Your task to perform on an android device: Add rayovac triple a to the cart on newegg.com, then select checkout. Image 0: 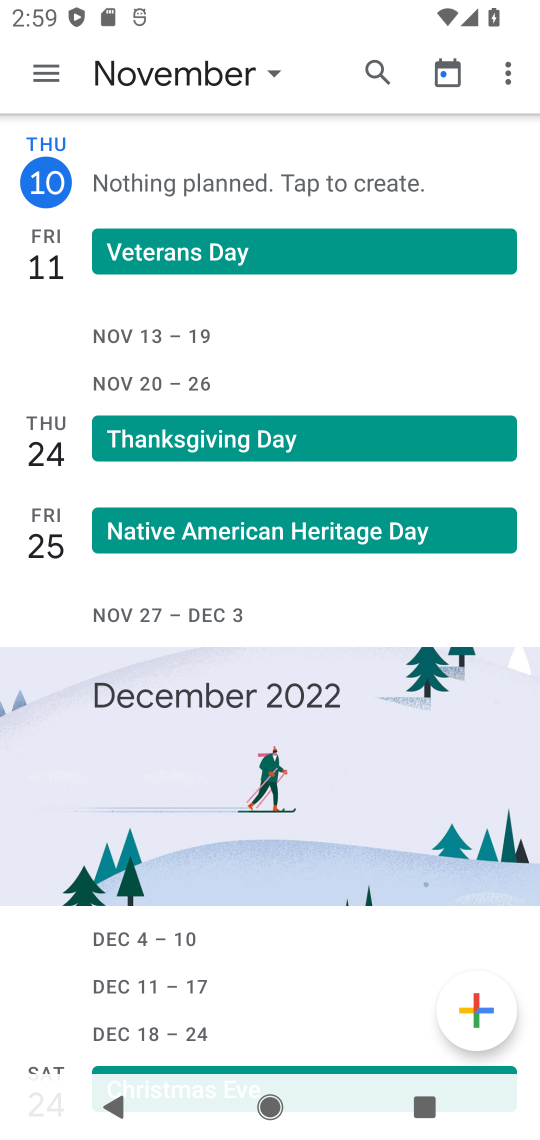
Step 0: press home button
Your task to perform on an android device: Add rayovac triple a to the cart on newegg.com, then select checkout. Image 1: 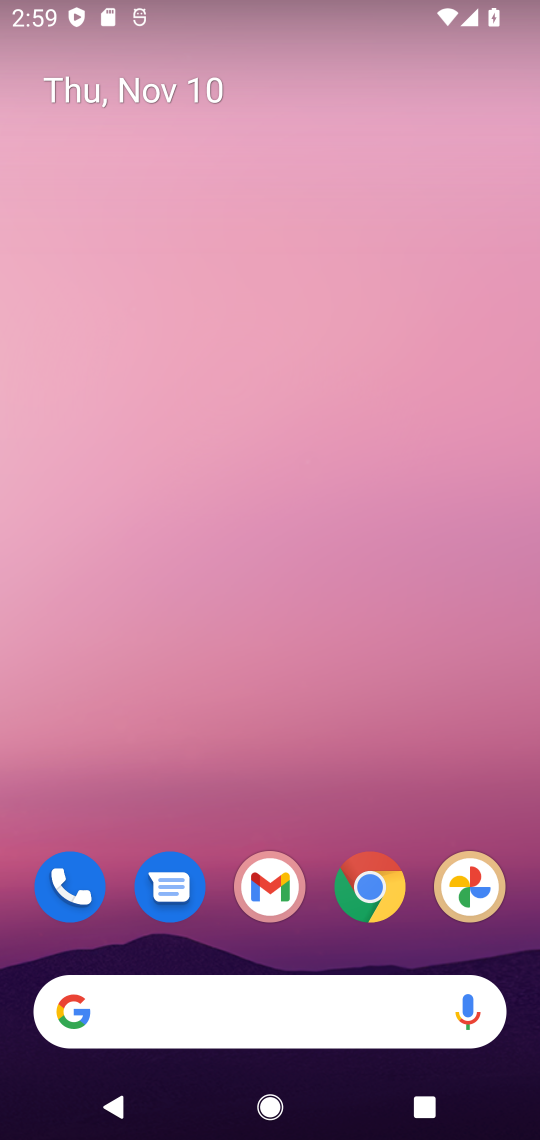
Step 1: drag from (322, 776) to (196, 18)
Your task to perform on an android device: Add rayovac triple a to the cart on newegg.com, then select checkout. Image 2: 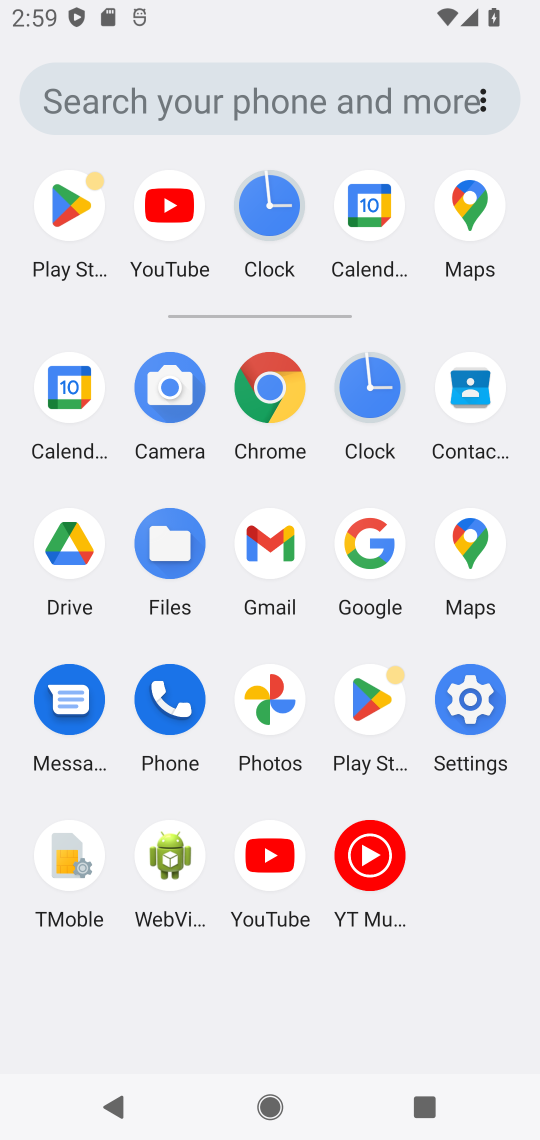
Step 2: click (272, 401)
Your task to perform on an android device: Add rayovac triple a to the cart on newegg.com, then select checkout. Image 3: 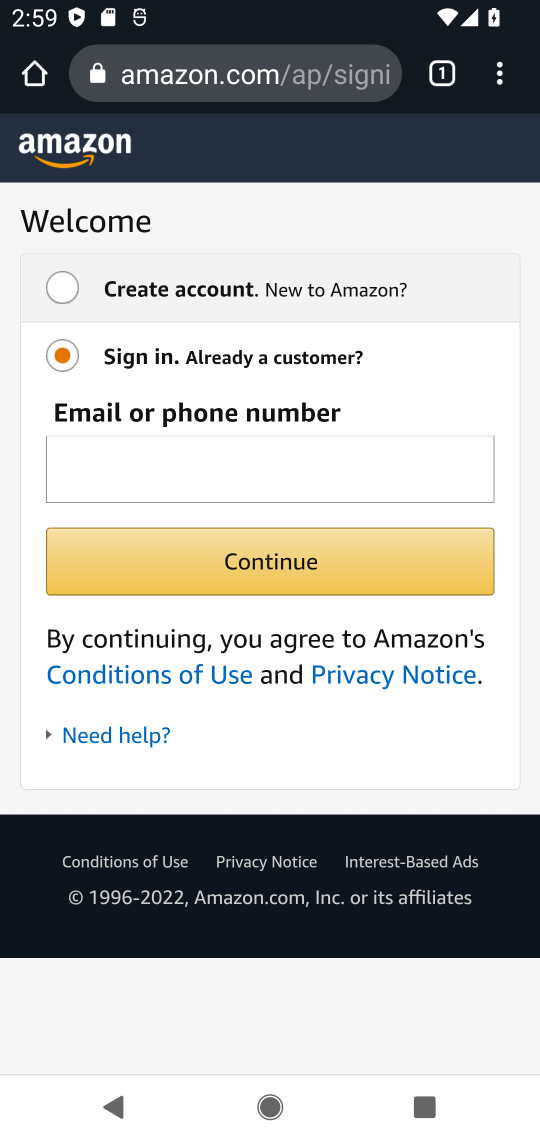
Step 3: click (231, 71)
Your task to perform on an android device: Add rayovac triple a to the cart on newegg.com, then select checkout. Image 4: 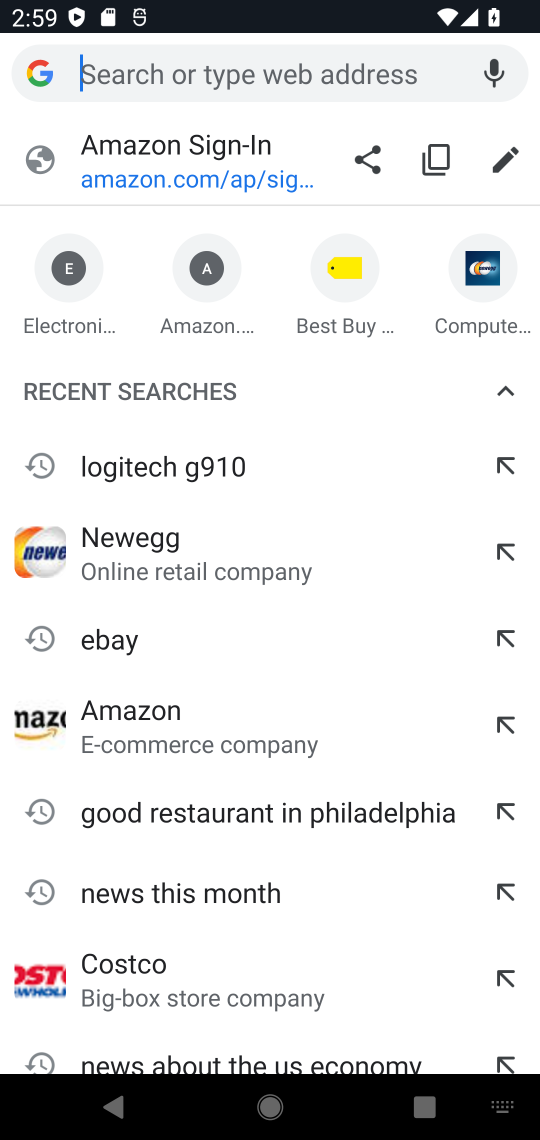
Step 4: type "newegg.com"
Your task to perform on an android device: Add rayovac triple a to the cart on newegg.com, then select checkout. Image 5: 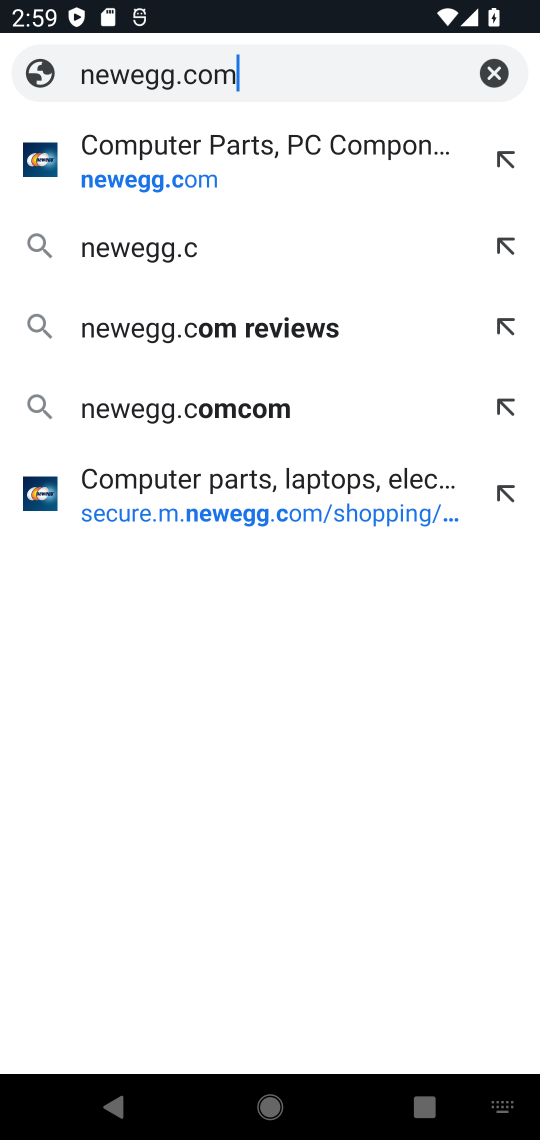
Step 5: press enter
Your task to perform on an android device: Add rayovac triple a to the cart on newegg.com, then select checkout. Image 6: 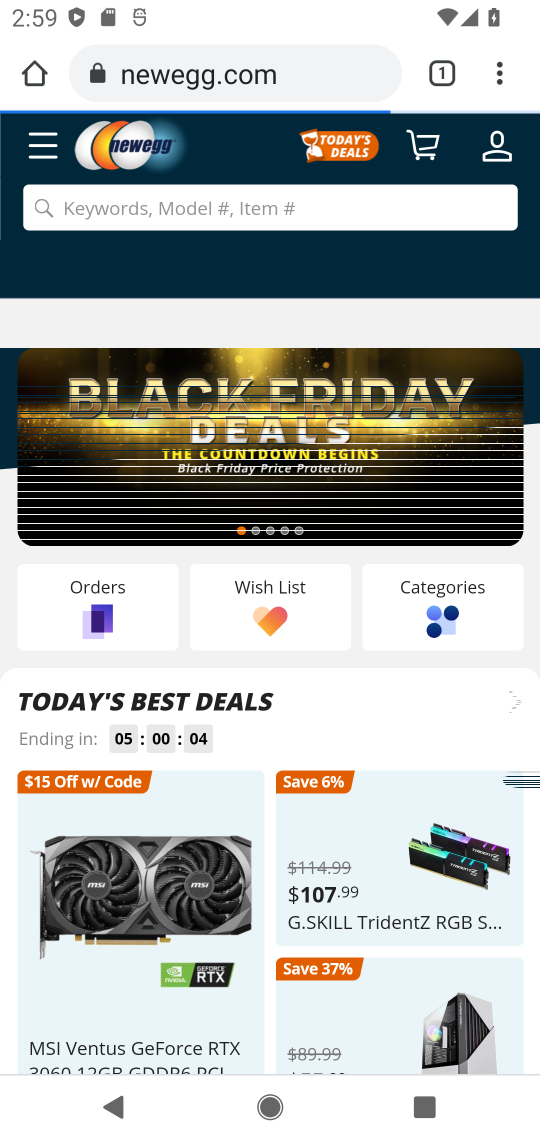
Step 6: click (214, 209)
Your task to perform on an android device: Add rayovac triple a to the cart on newegg.com, then select checkout. Image 7: 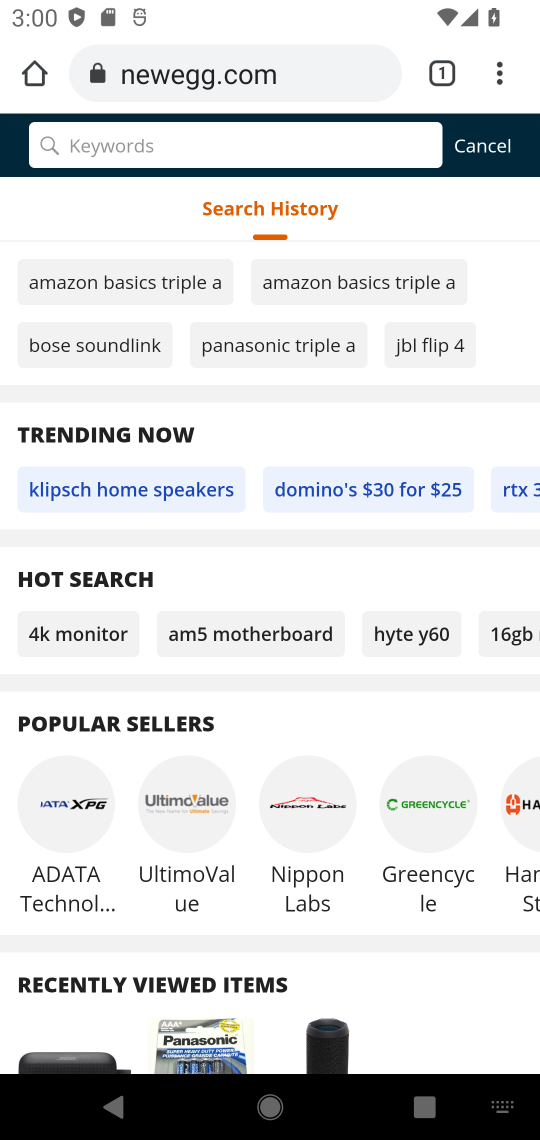
Step 7: type "rayovac triple a"
Your task to perform on an android device: Add rayovac triple a to the cart on newegg.com, then select checkout. Image 8: 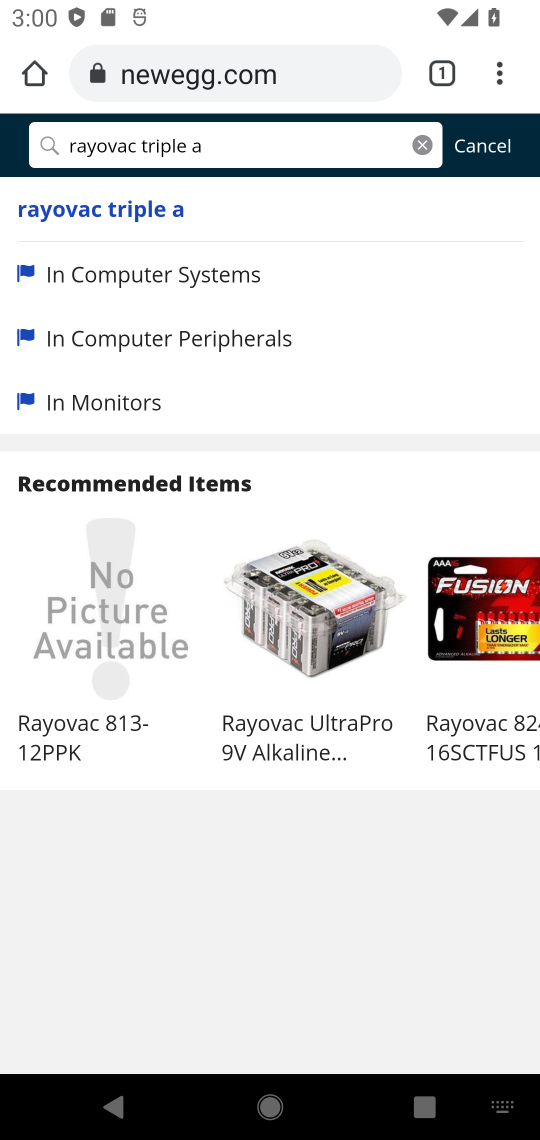
Step 8: press enter
Your task to perform on an android device: Add rayovac triple a to the cart on newegg.com, then select checkout. Image 9: 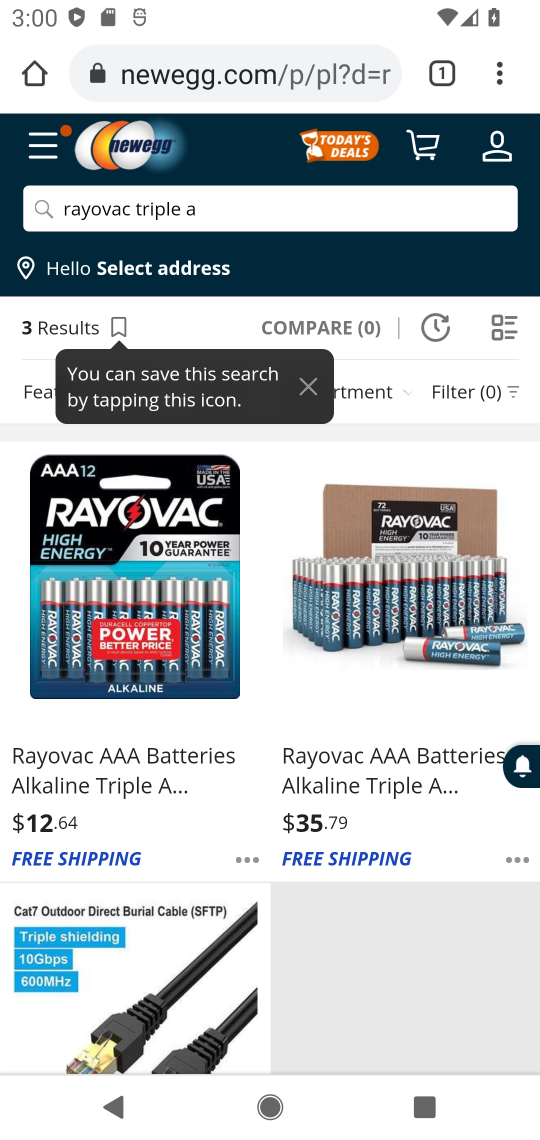
Step 9: click (98, 743)
Your task to perform on an android device: Add rayovac triple a to the cart on newegg.com, then select checkout. Image 10: 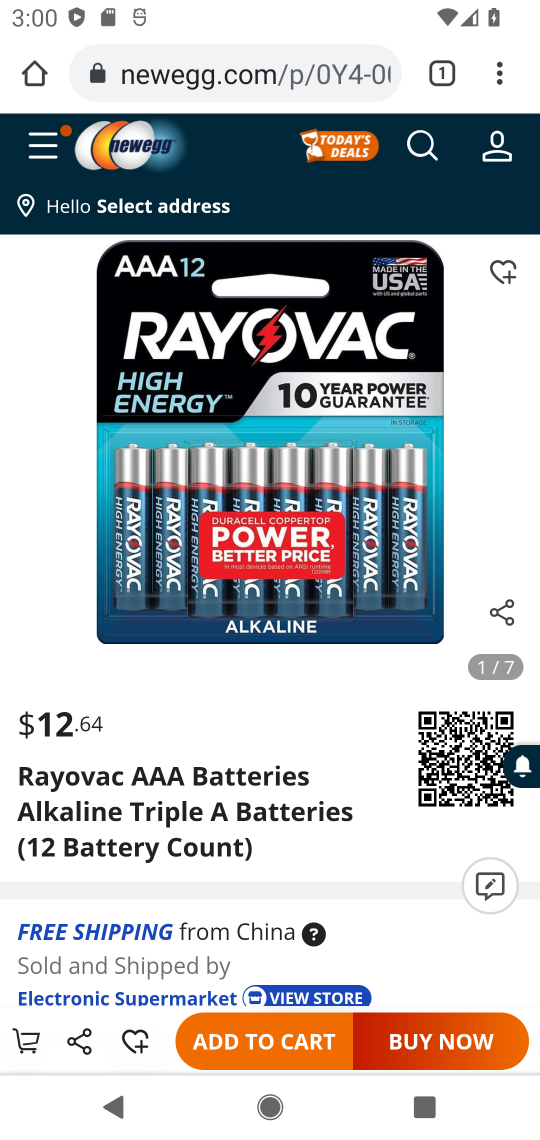
Step 10: click (241, 1043)
Your task to perform on an android device: Add rayovac triple a to the cart on newegg.com, then select checkout. Image 11: 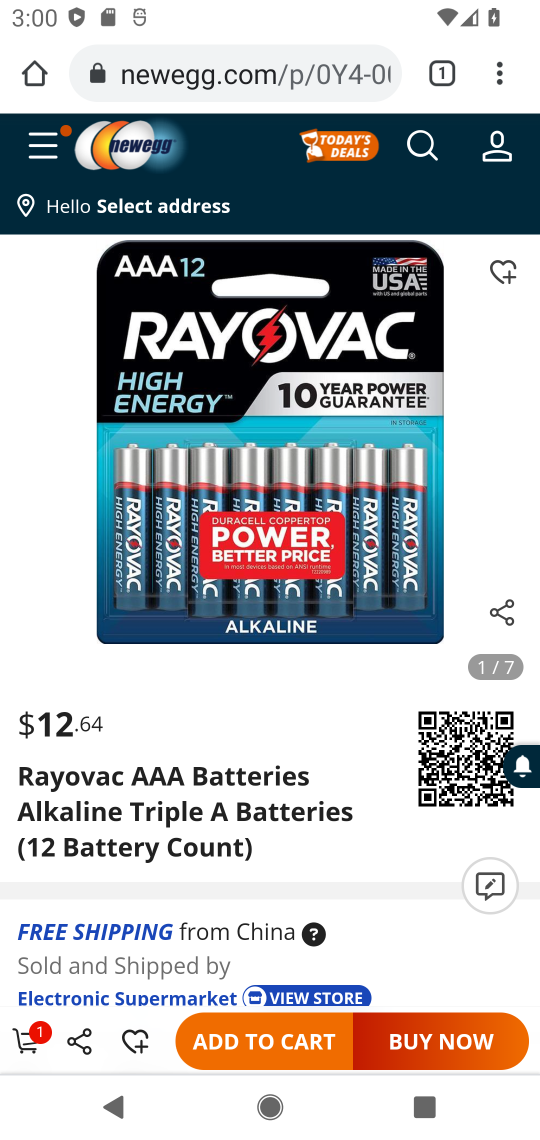
Step 11: click (32, 1043)
Your task to perform on an android device: Add rayovac triple a to the cart on newegg.com, then select checkout. Image 12: 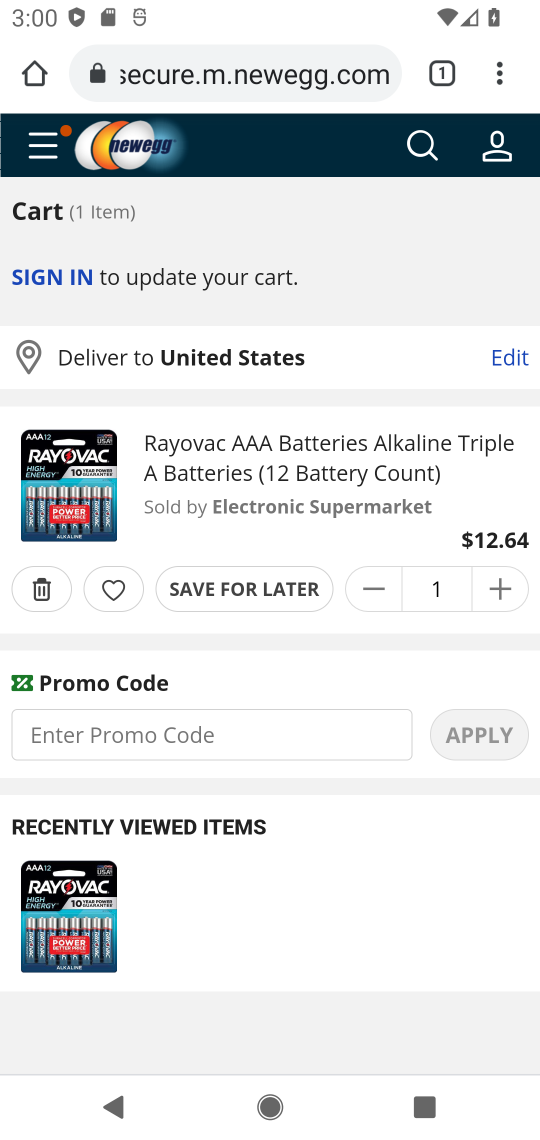
Step 12: click (306, 876)
Your task to perform on an android device: Add rayovac triple a to the cart on newegg.com, then select checkout. Image 13: 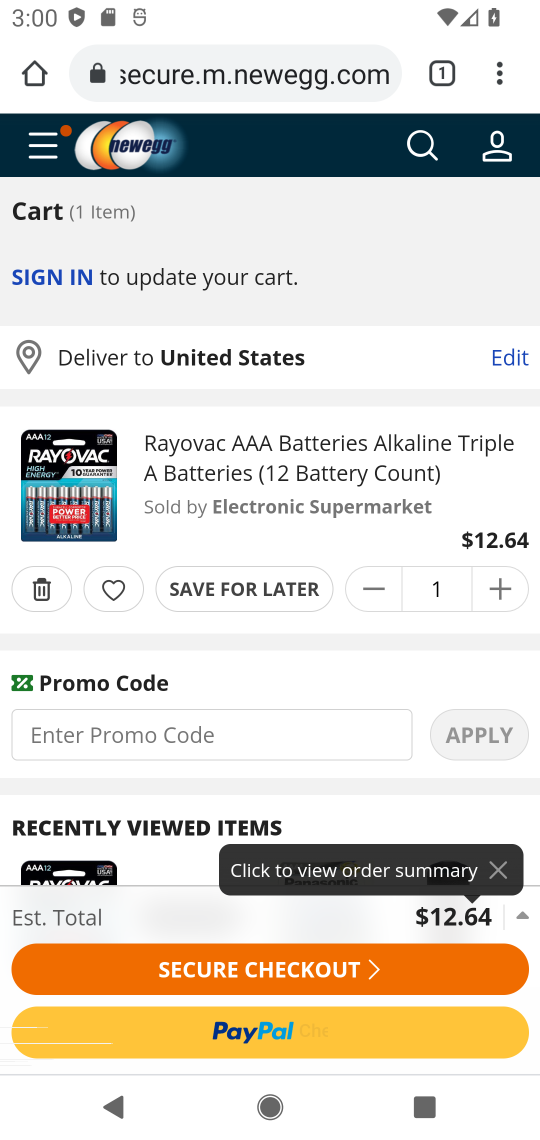
Step 13: click (277, 959)
Your task to perform on an android device: Add rayovac triple a to the cart on newegg.com, then select checkout. Image 14: 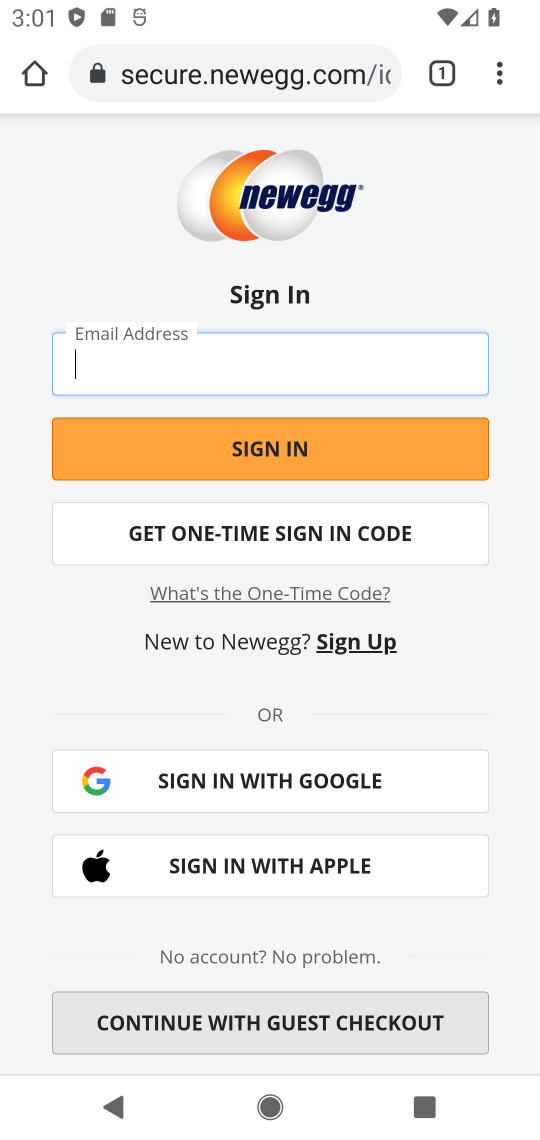
Step 14: task complete